Your task to perform on an android device: Open settings on Google Maps Image 0: 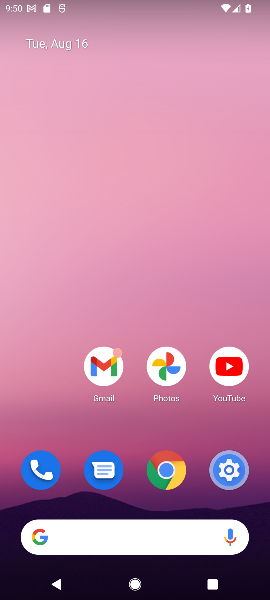
Step 0: drag from (67, 327) to (100, 0)
Your task to perform on an android device: Open settings on Google Maps Image 1: 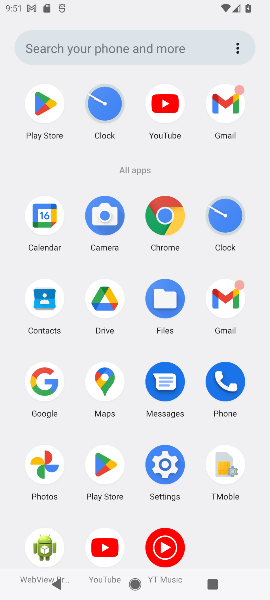
Step 1: click (103, 377)
Your task to perform on an android device: Open settings on Google Maps Image 2: 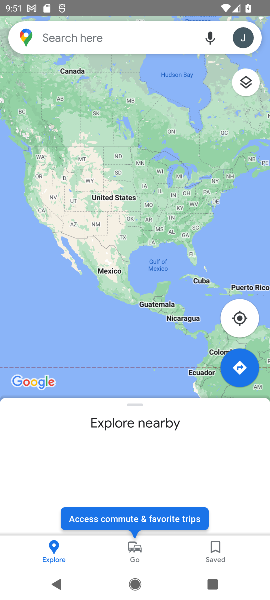
Step 2: click (241, 27)
Your task to perform on an android device: Open settings on Google Maps Image 3: 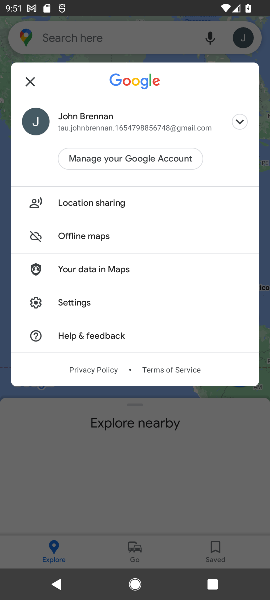
Step 3: click (82, 299)
Your task to perform on an android device: Open settings on Google Maps Image 4: 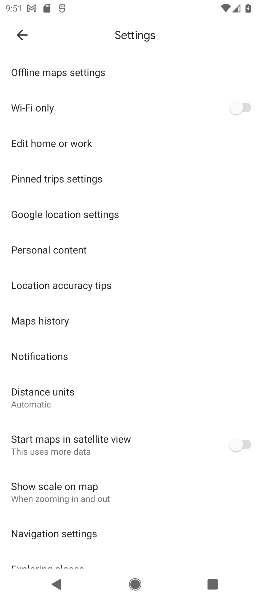
Step 4: task complete